Your task to perform on an android device: toggle location history Image 0: 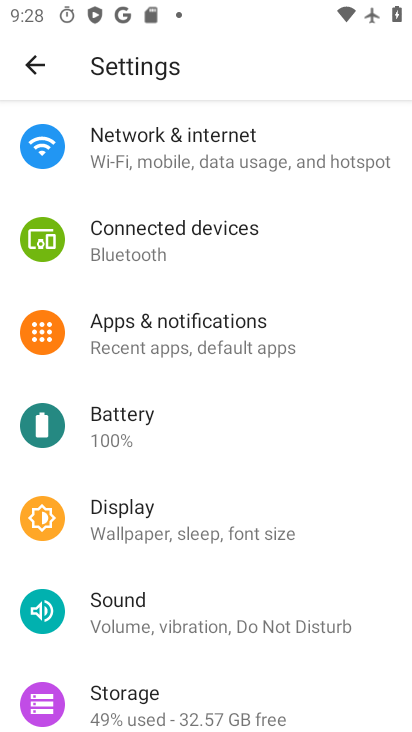
Step 0: press home button
Your task to perform on an android device: toggle location history Image 1: 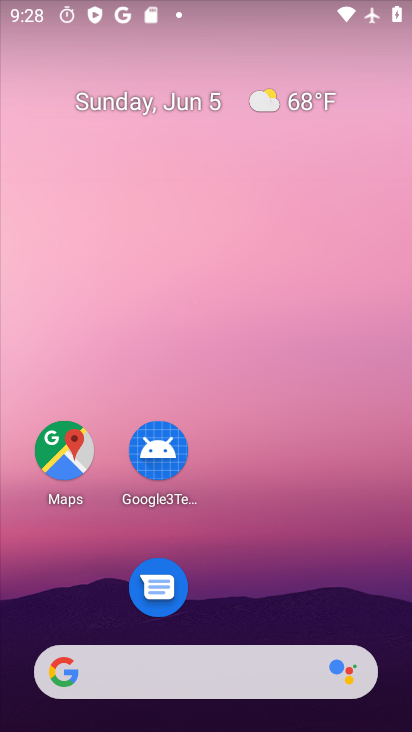
Step 1: drag from (291, 630) to (80, 35)
Your task to perform on an android device: toggle location history Image 2: 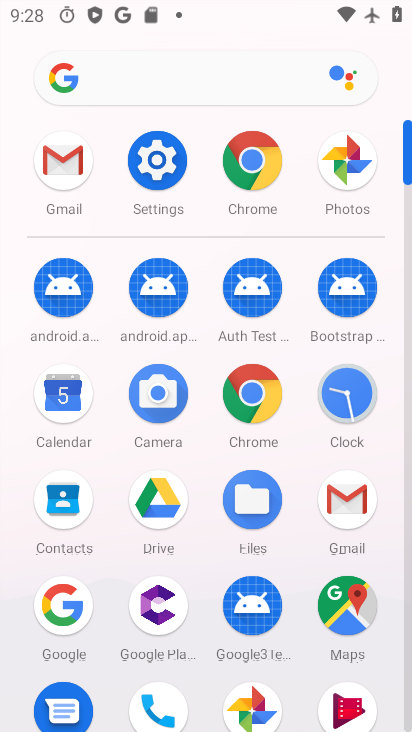
Step 2: click (155, 169)
Your task to perform on an android device: toggle location history Image 3: 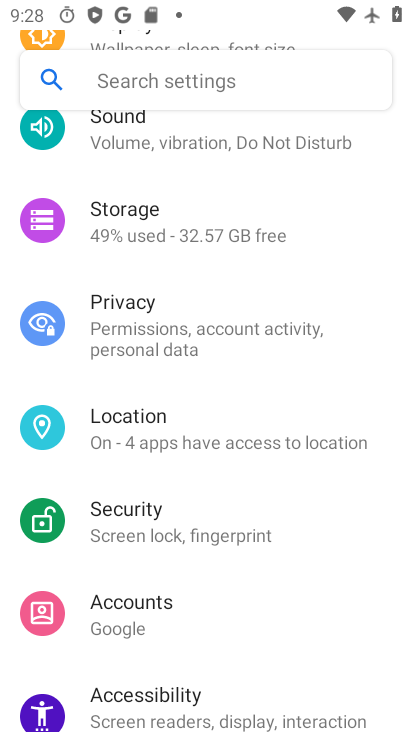
Step 3: click (170, 631)
Your task to perform on an android device: toggle location history Image 4: 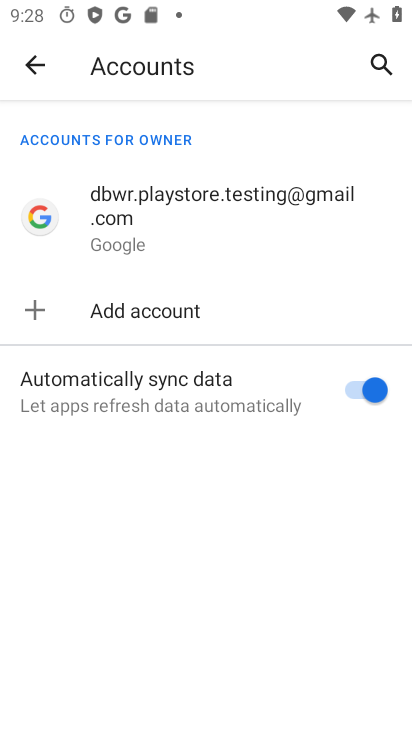
Step 4: click (38, 73)
Your task to perform on an android device: toggle location history Image 5: 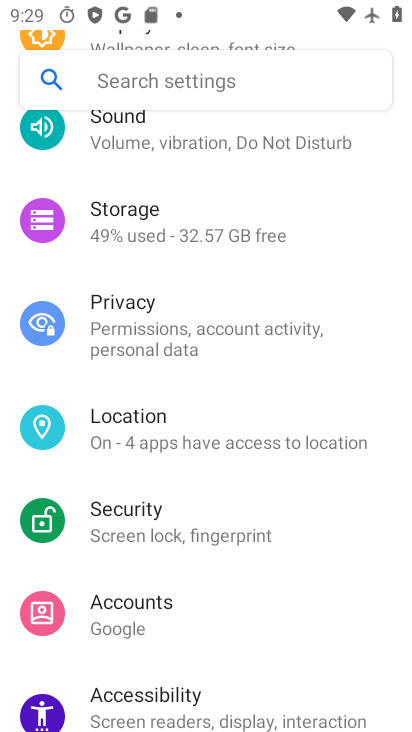
Step 5: click (212, 427)
Your task to perform on an android device: toggle location history Image 6: 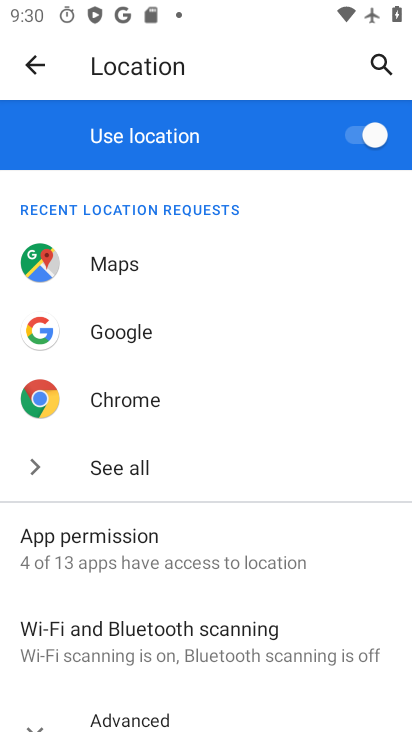
Step 6: drag from (184, 676) to (96, 395)
Your task to perform on an android device: toggle location history Image 7: 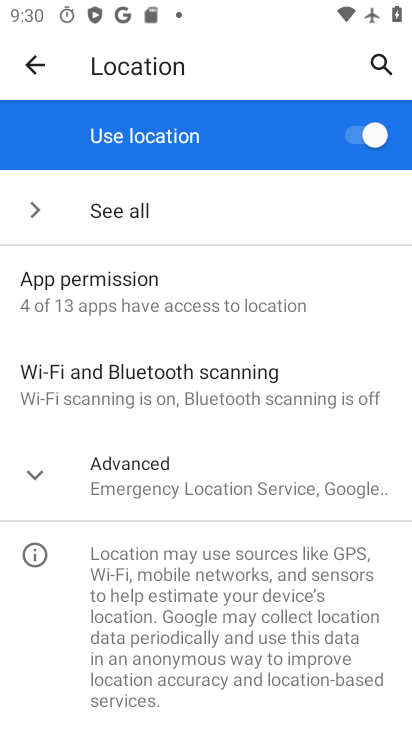
Step 7: click (177, 498)
Your task to perform on an android device: toggle location history Image 8: 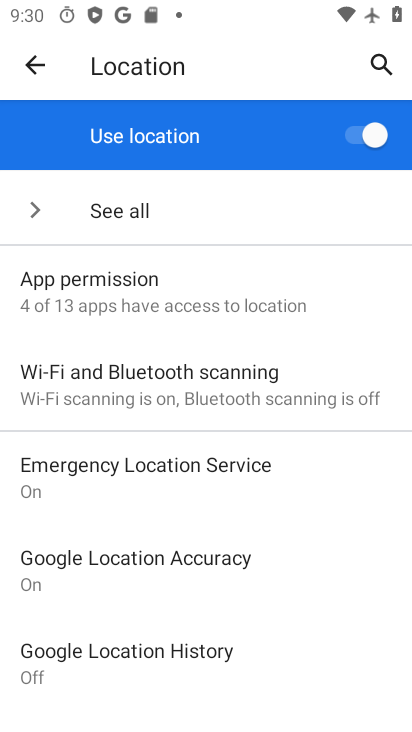
Step 8: click (183, 657)
Your task to perform on an android device: toggle location history Image 9: 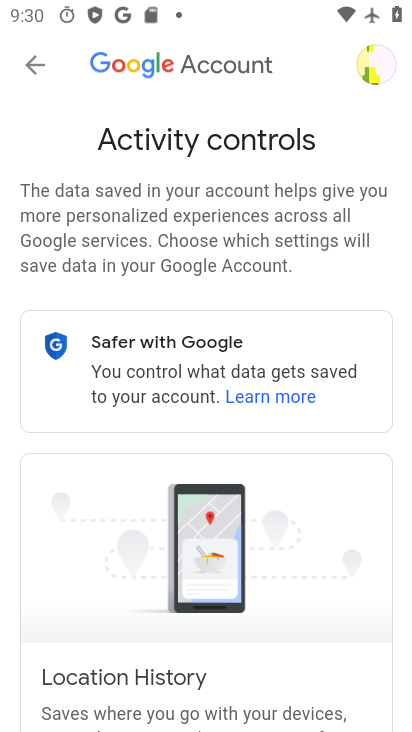
Step 9: drag from (287, 515) to (232, 222)
Your task to perform on an android device: toggle location history Image 10: 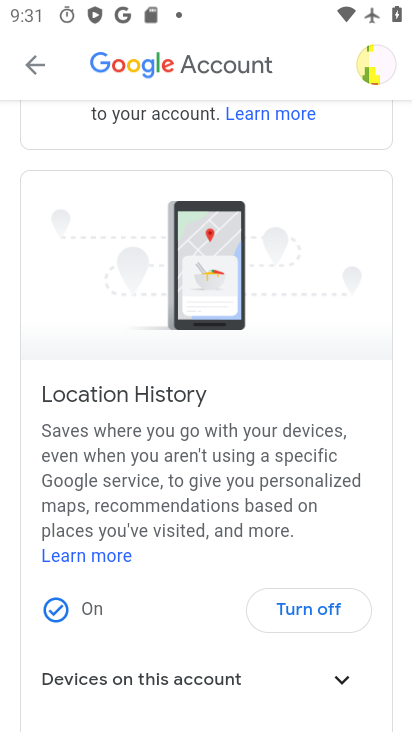
Step 10: click (297, 592)
Your task to perform on an android device: toggle location history Image 11: 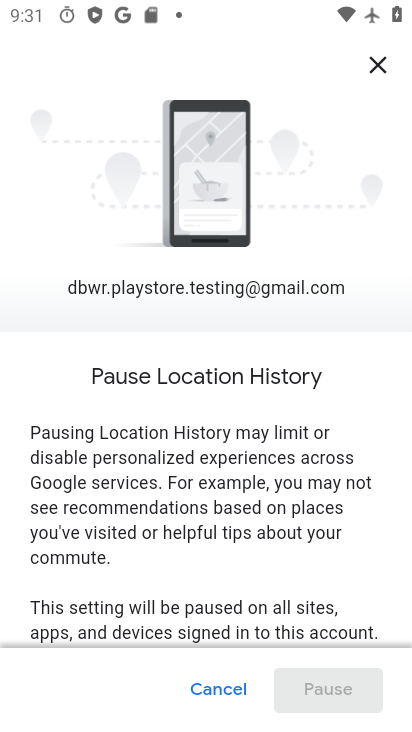
Step 11: click (215, 690)
Your task to perform on an android device: toggle location history Image 12: 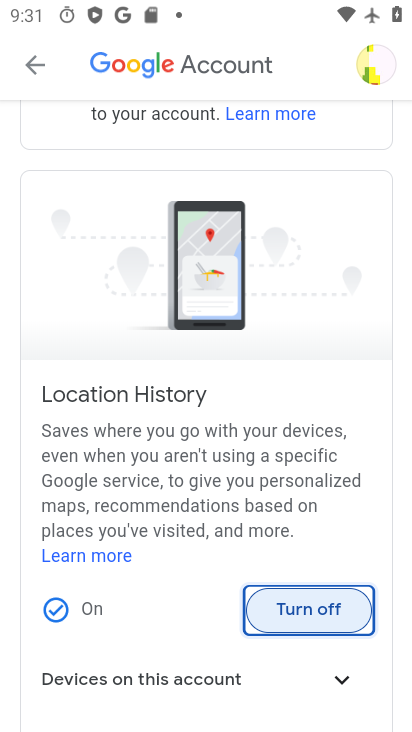
Step 12: click (63, 599)
Your task to perform on an android device: toggle location history Image 13: 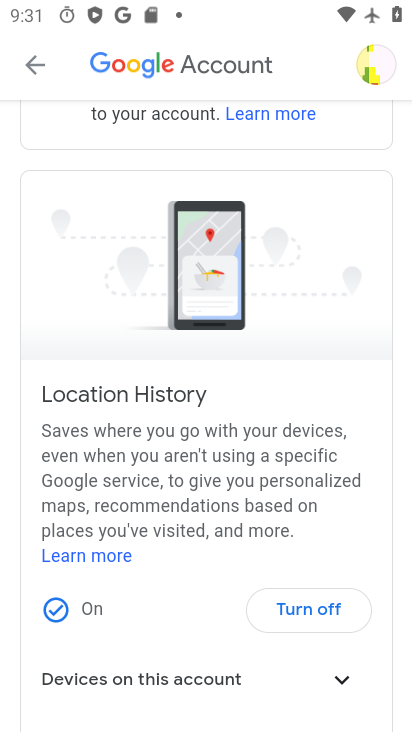
Step 13: click (60, 605)
Your task to perform on an android device: toggle location history Image 14: 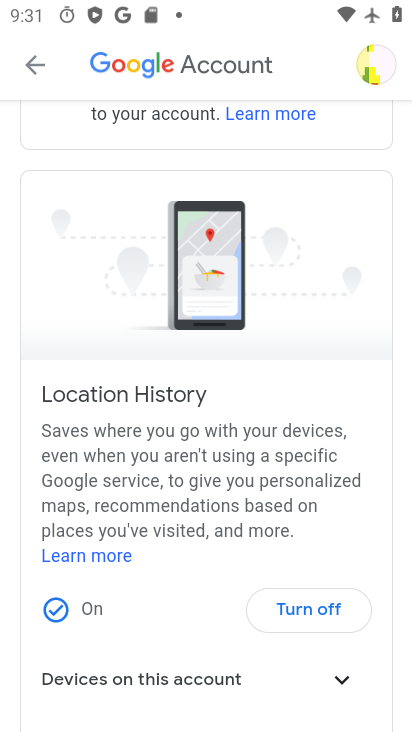
Step 14: click (90, 610)
Your task to perform on an android device: toggle location history Image 15: 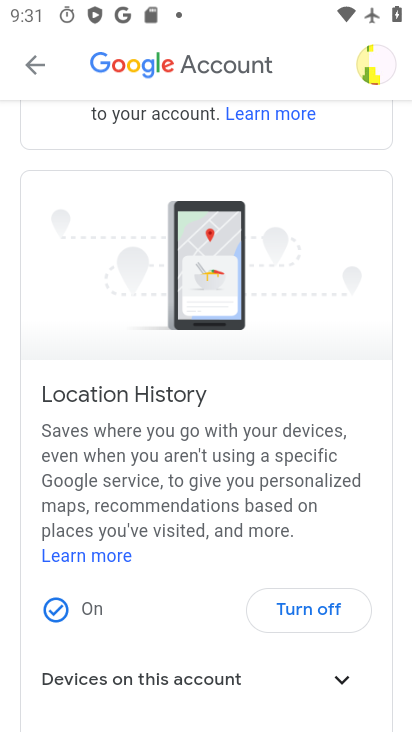
Step 15: click (90, 610)
Your task to perform on an android device: toggle location history Image 16: 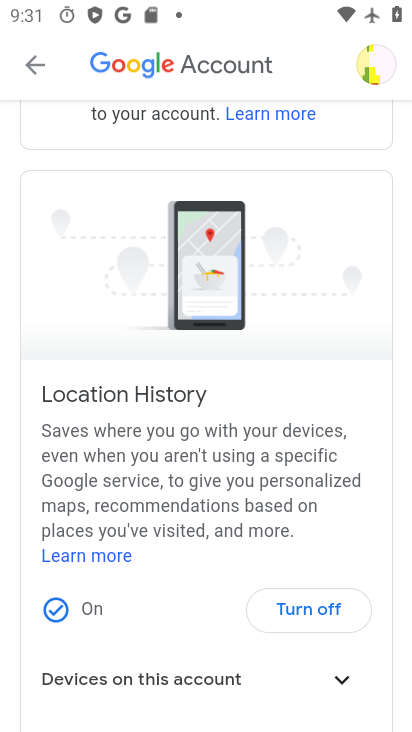
Step 16: click (90, 610)
Your task to perform on an android device: toggle location history Image 17: 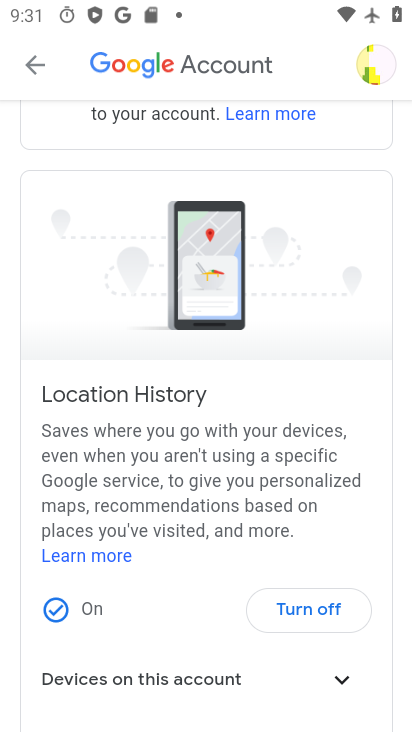
Step 17: click (90, 610)
Your task to perform on an android device: toggle location history Image 18: 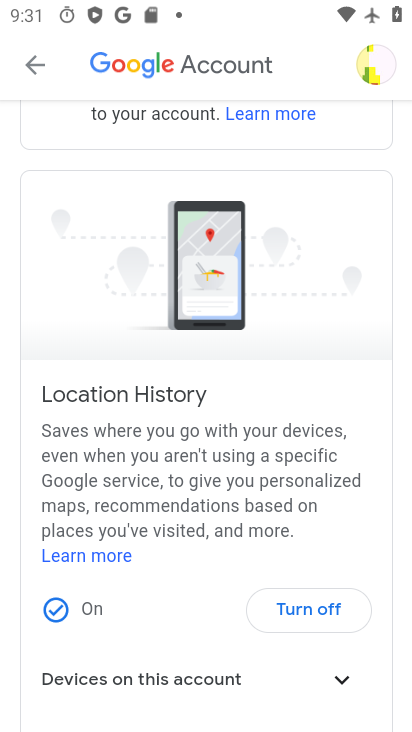
Step 18: click (279, 600)
Your task to perform on an android device: toggle location history Image 19: 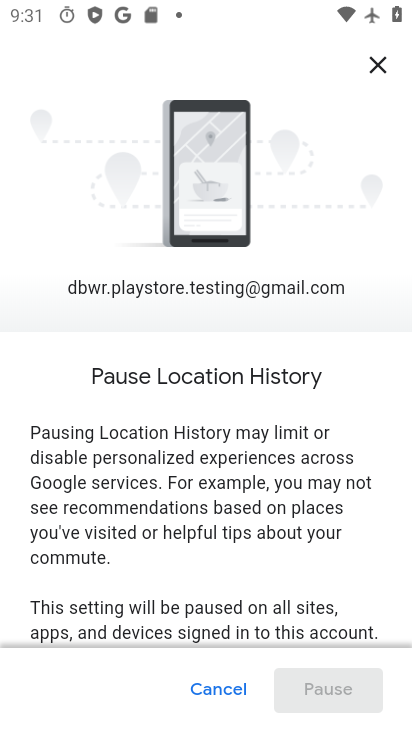
Step 19: drag from (279, 600) to (166, 215)
Your task to perform on an android device: toggle location history Image 20: 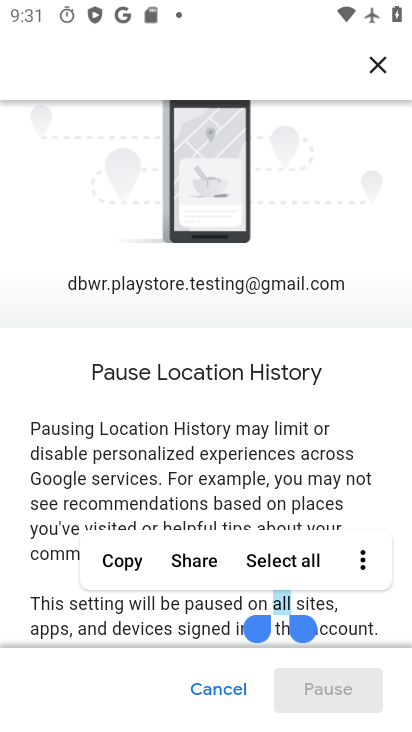
Step 20: click (168, 487)
Your task to perform on an android device: toggle location history Image 21: 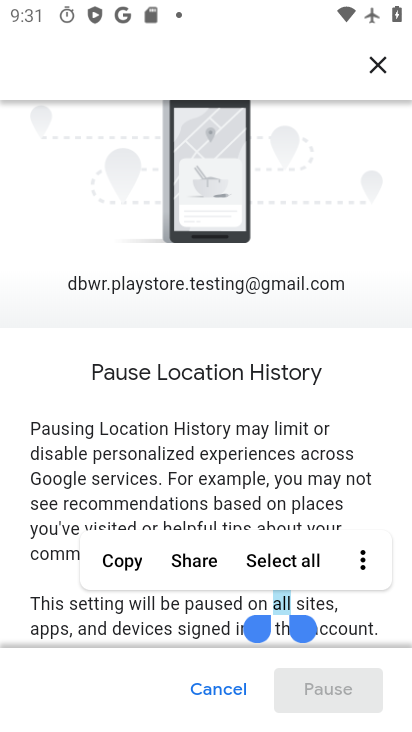
Step 21: drag from (168, 487) to (182, 84)
Your task to perform on an android device: toggle location history Image 22: 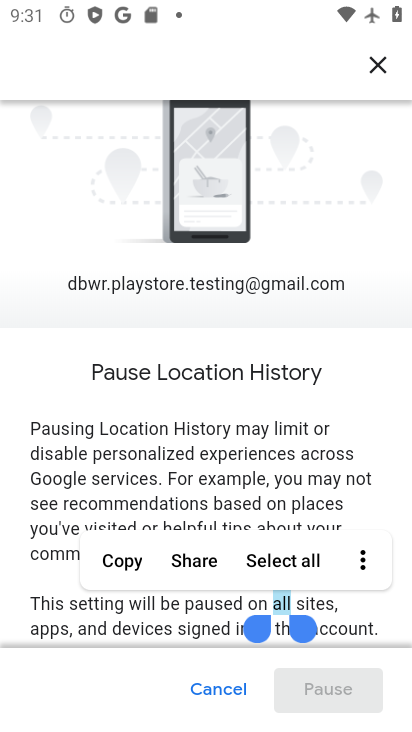
Step 22: click (193, 494)
Your task to perform on an android device: toggle location history Image 23: 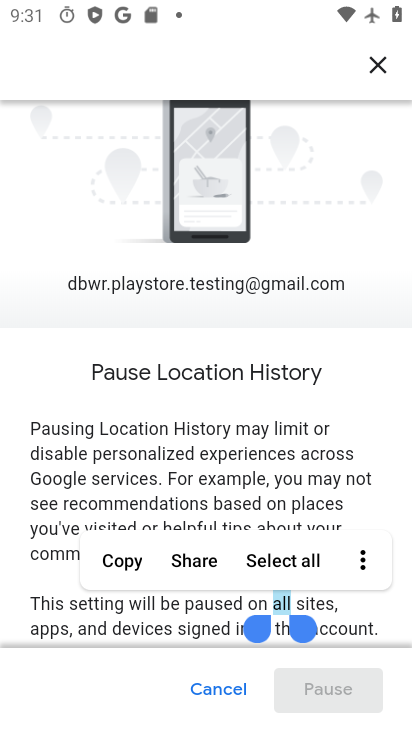
Step 23: click (246, 397)
Your task to perform on an android device: toggle location history Image 24: 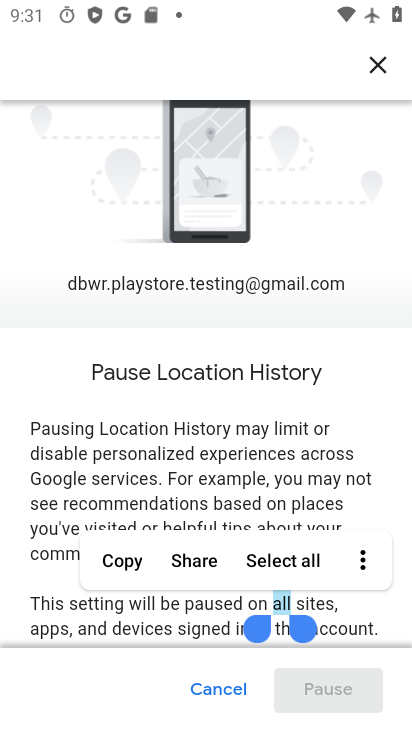
Step 24: click (246, 397)
Your task to perform on an android device: toggle location history Image 25: 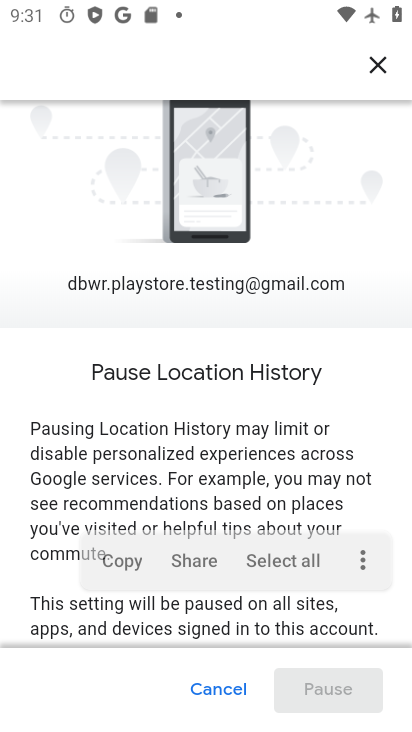
Step 25: click (246, 397)
Your task to perform on an android device: toggle location history Image 26: 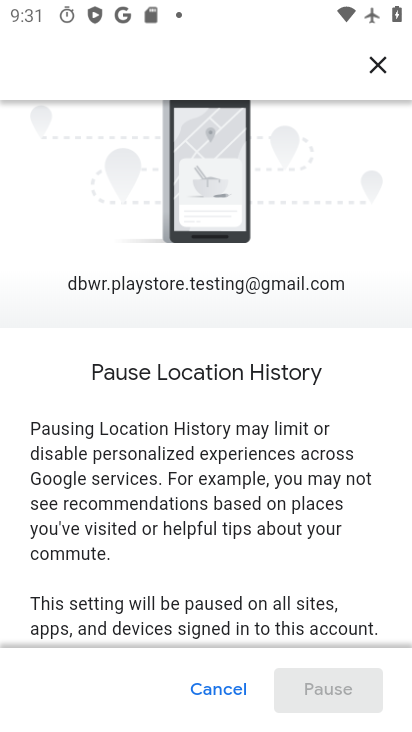
Step 26: drag from (266, 533) to (271, 151)
Your task to perform on an android device: toggle location history Image 27: 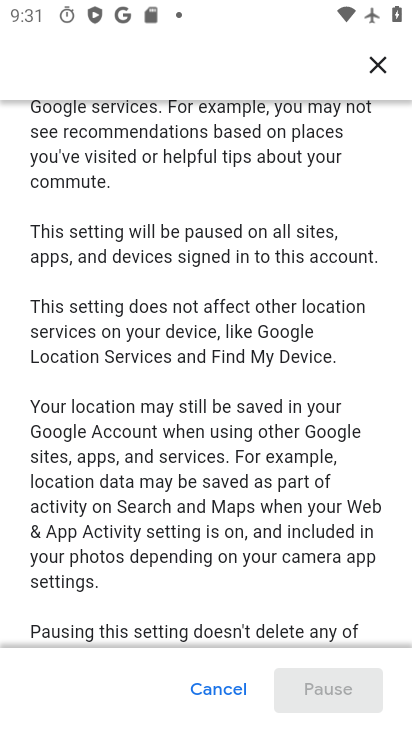
Step 27: drag from (278, 631) to (257, 409)
Your task to perform on an android device: toggle location history Image 28: 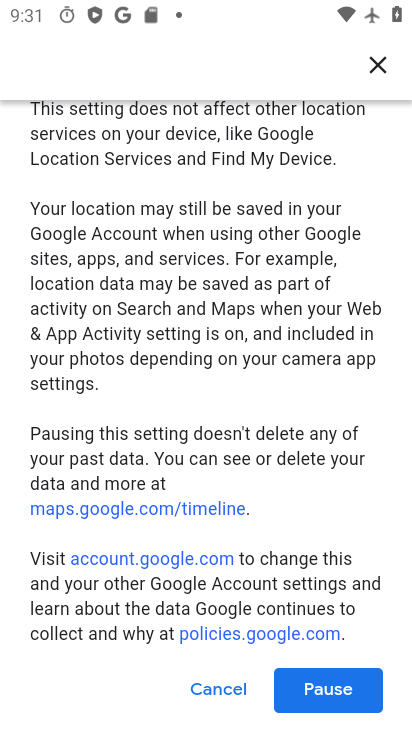
Step 28: click (332, 690)
Your task to perform on an android device: toggle location history Image 29: 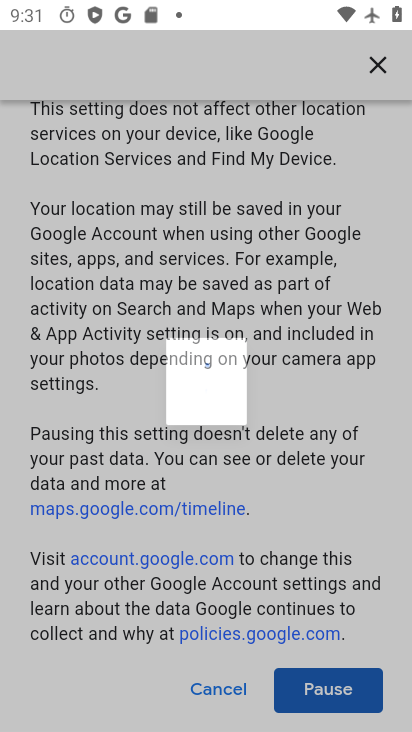
Step 29: click (332, 690)
Your task to perform on an android device: toggle location history Image 30: 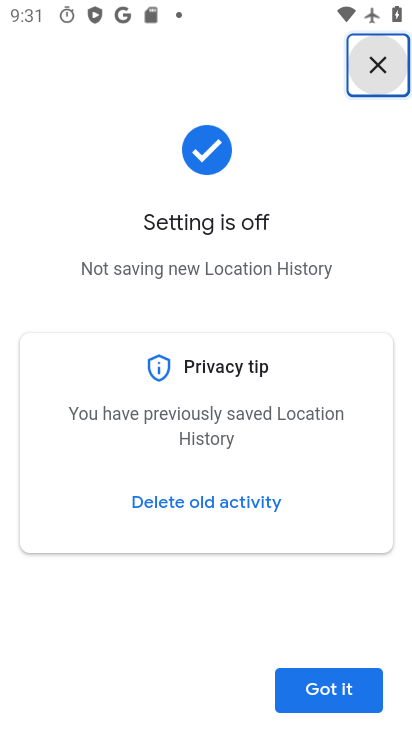
Step 30: click (322, 705)
Your task to perform on an android device: toggle location history Image 31: 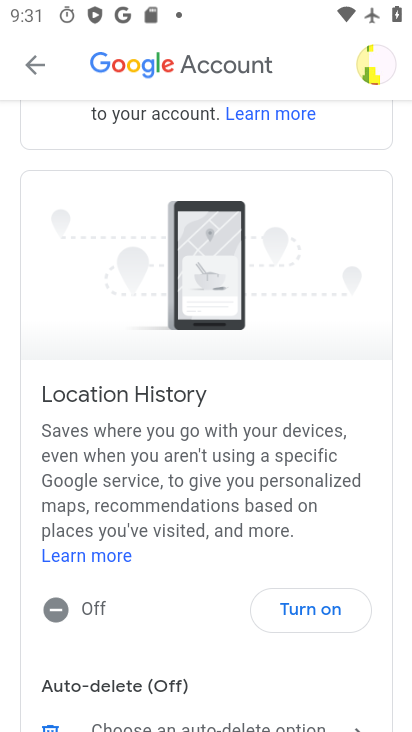
Step 31: task complete